Your task to perform on an android device: Show me the alarms in the clock app Image 0: 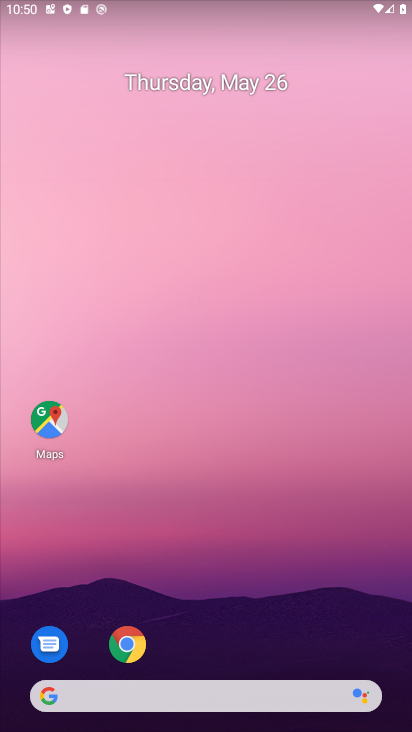
Step 0: drag from (375, 647) to (224, 112)
Your task to perform on an android device: Show me the alarms in the clock app Image 1: 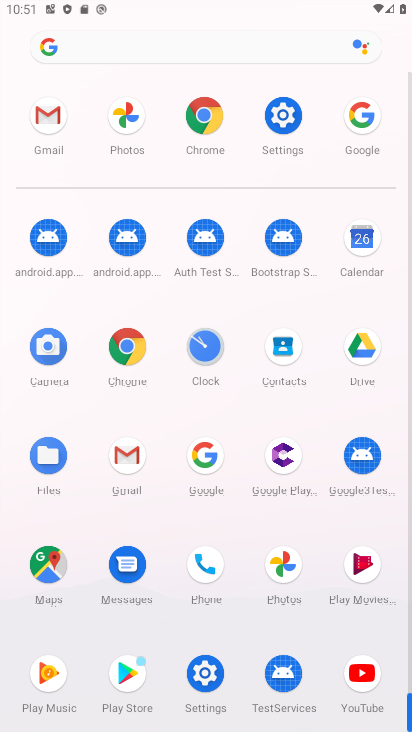
Step 1: click (214, 339)
Your task to perform on an android device: Show me the alarms in the clock app Image 2: 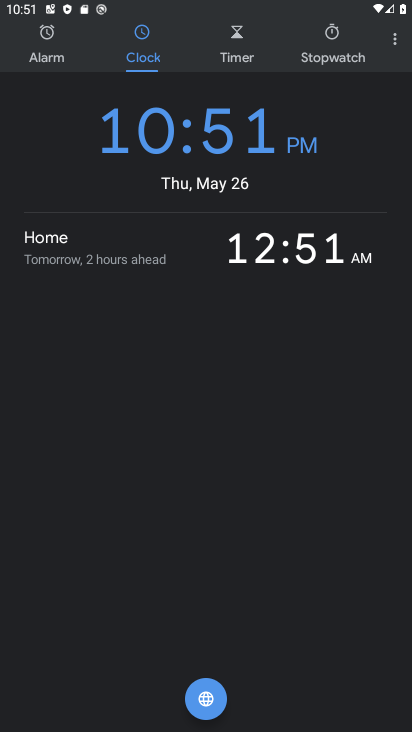
Step 2: click (57, 49)
Your task to perform on an android device: Show me the alarms in the clock app Image 3: 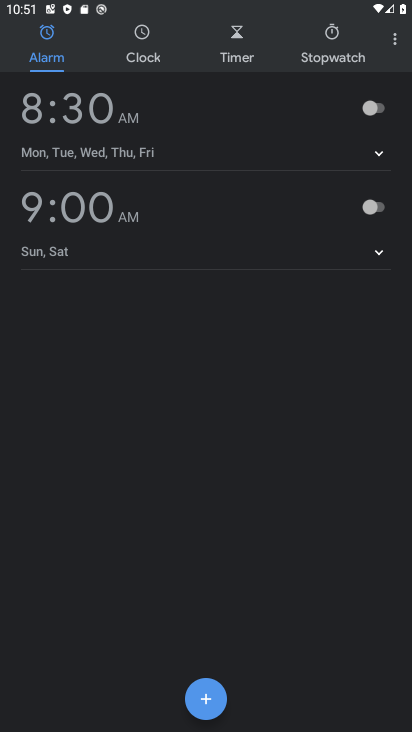
Step 3: task complete